Your task to perform on an android device: View the shopping cart on costco. Search for "corsair k70" on costco, select the first entry, and add it to the cart. Image 0: 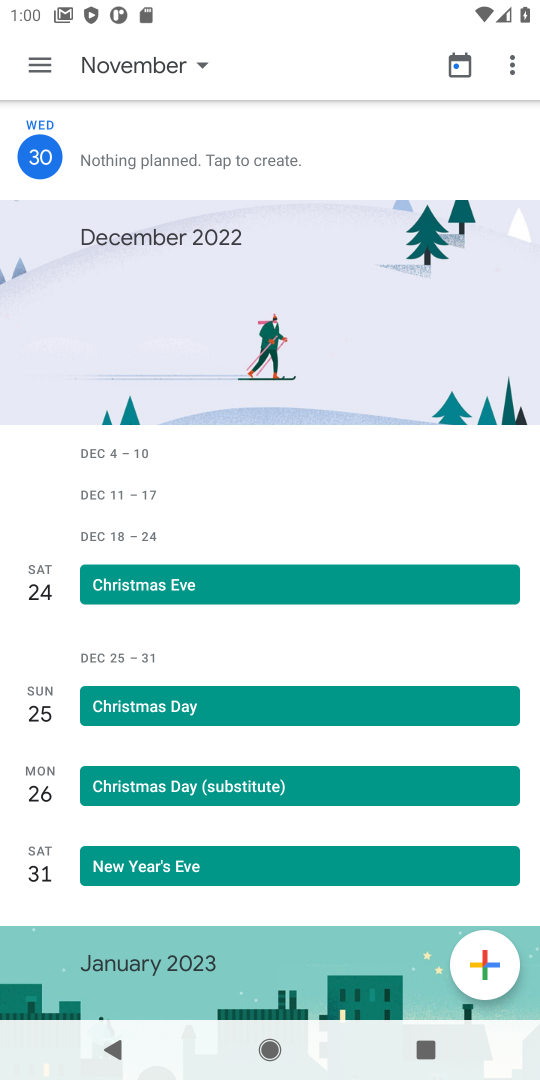
Step 0: press home button
Your task to perform on an android device: View the shopping cart on costco. Search for "corsair k70" on costco, select the first entry, and add it to the cart. Image 1: 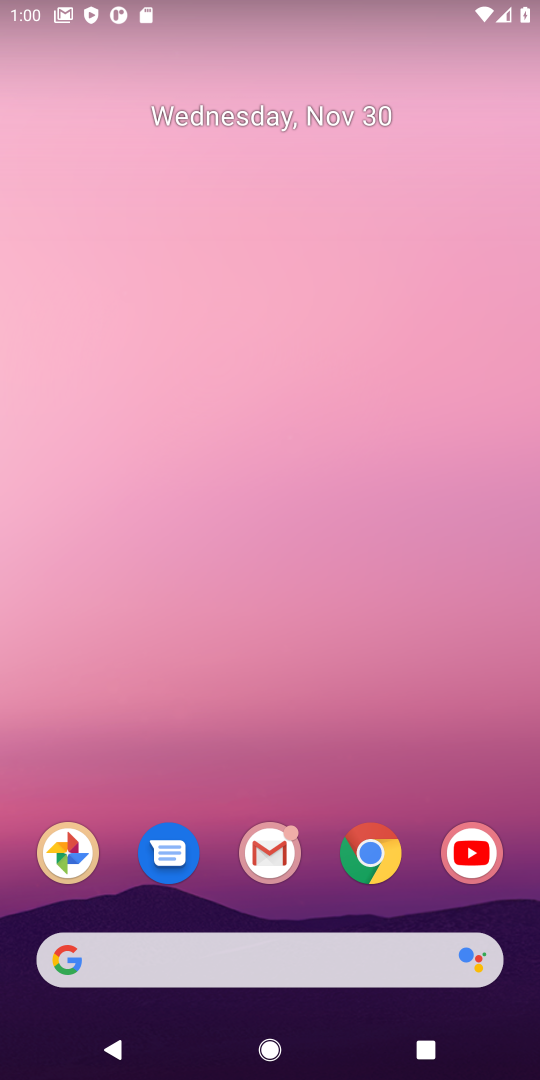
Step 1: click (376, 848)
Your task to perform on an android device: View the shopping cart on costco. Search for "corsair k70" on costco, select the first entry, and add it to the cart. Image 2: 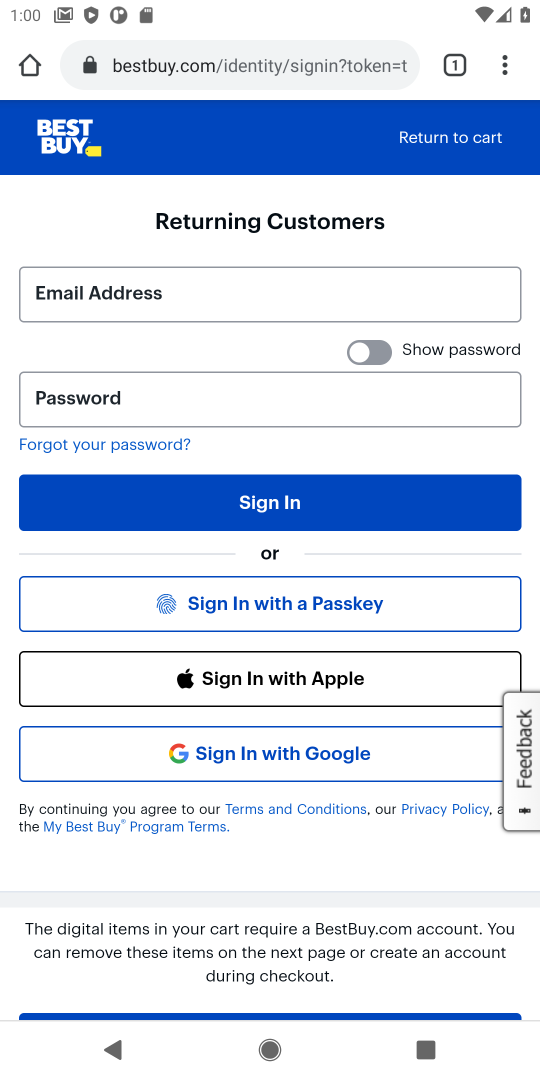
Step 2: click (204, 64)
Your task to perform on an android device: View the shopping cart on costco. Search for "corsair k70" on costco, select the first entry, and add it to the cart. Image 3: 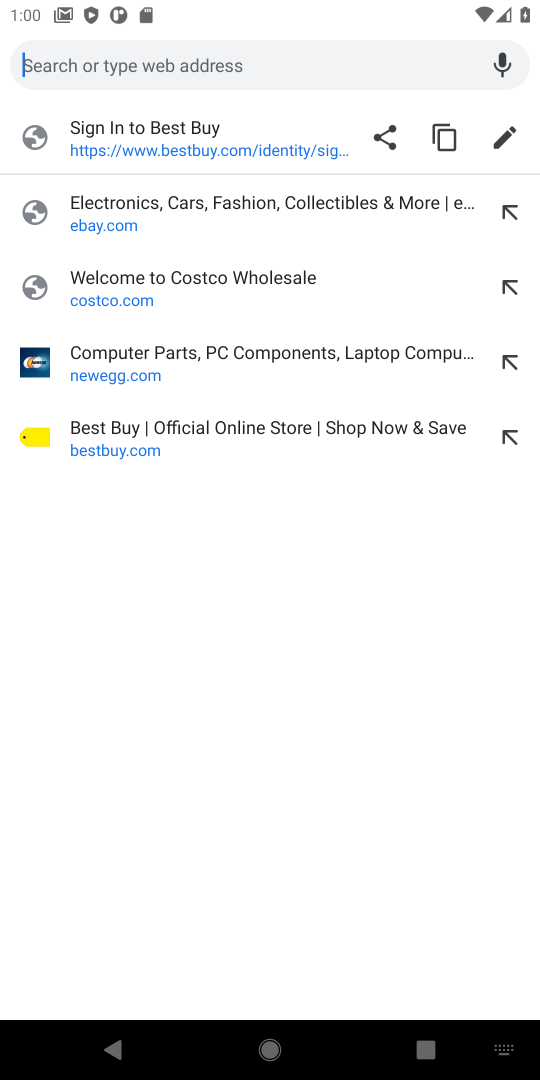
Step 3: click (88, 283)
Your task to perform on an android device: View the shopping cart on costco. Search for "corsair k70" on costco, select the first entry, and add it to the cart. Image 4: 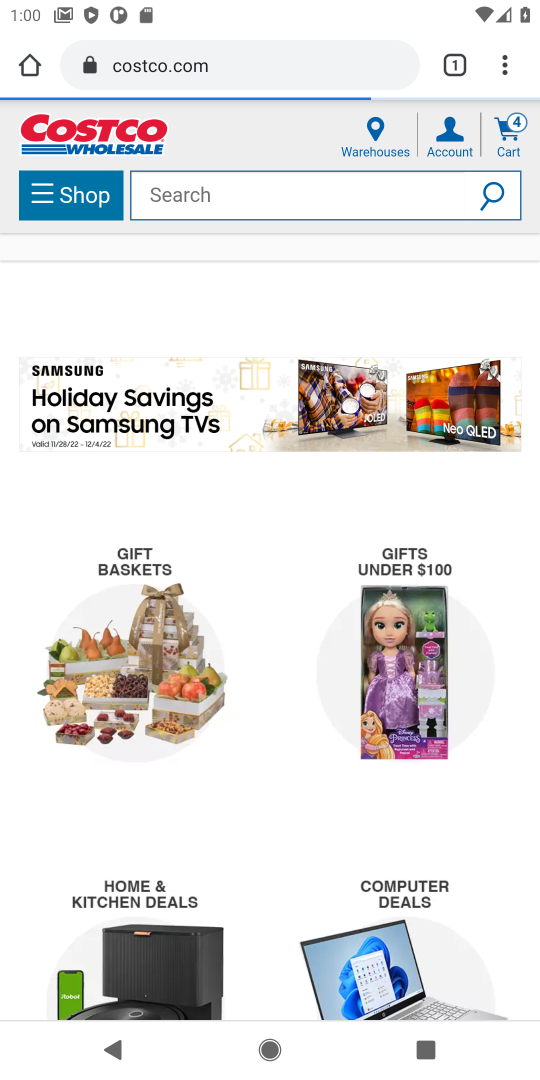
Step 4: click (518, 138)
Your task to perform on an android device: View the shopping cart on costco. Search for "corsair k70" on costco, select the first entry, and add it to the cart. Image 5: 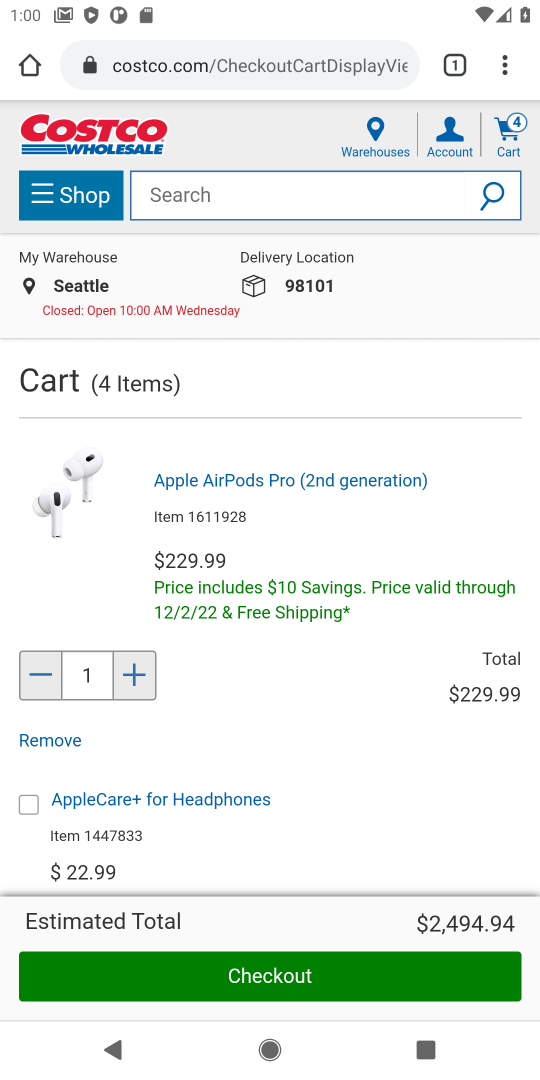
Step 5: click (186, 199)
Your task to perform on an android device: View the shopping cart on costco. Search for "corsair k70" on costco, select the first entry, and add it to the cart. Image 6: 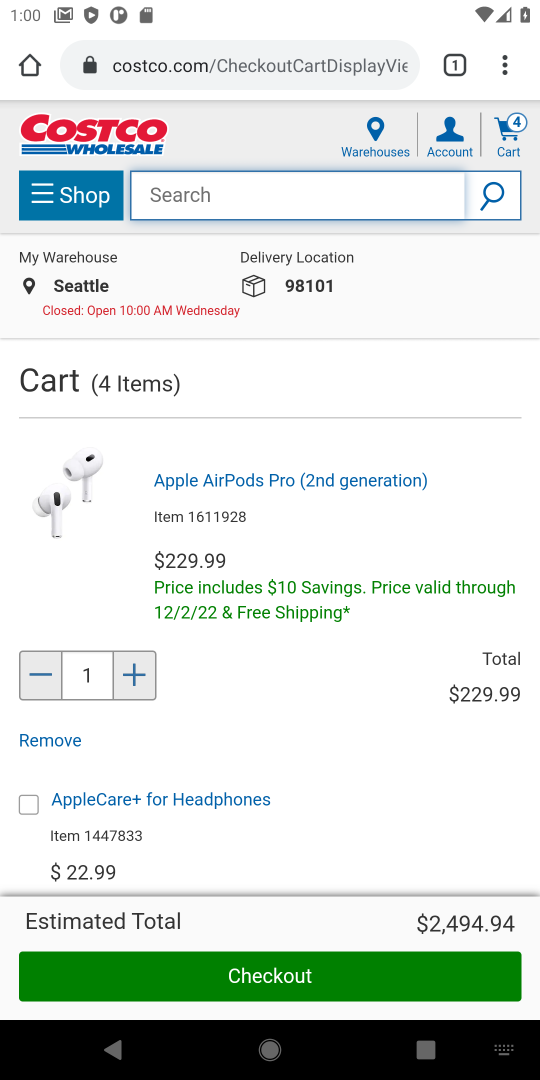
Step 6: type "corsair k70"
Your task to perform on an android device: View the shopping cart on costco. Search for "corsair k70" on costco, select the first entry, and add it to the cart. Image 7: 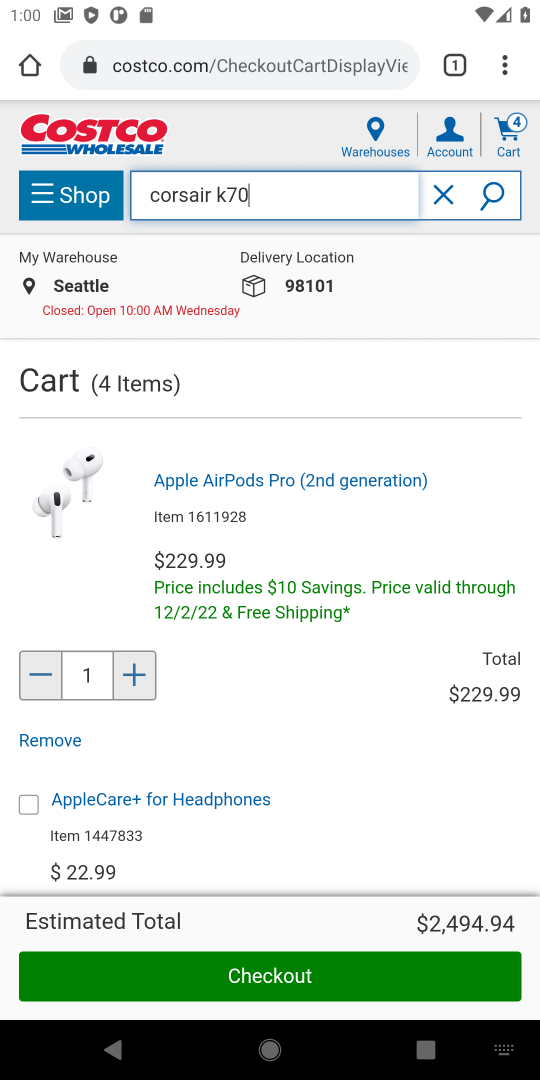
Step 7: click (493, 202)
Your task to perform on an android device: View the shopping cart on costco. Search for "corsair k70" on costco, select the first entry, and add it to the cart. Image 8: 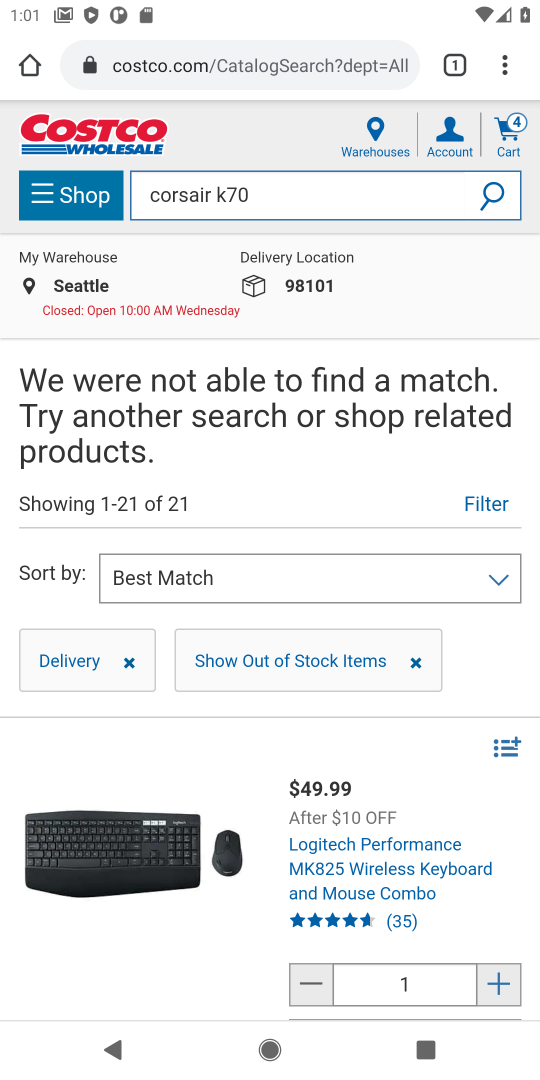
Step 8: task complete